Your task to perform on an android device: visit the assistant section in the google photos Image 0: 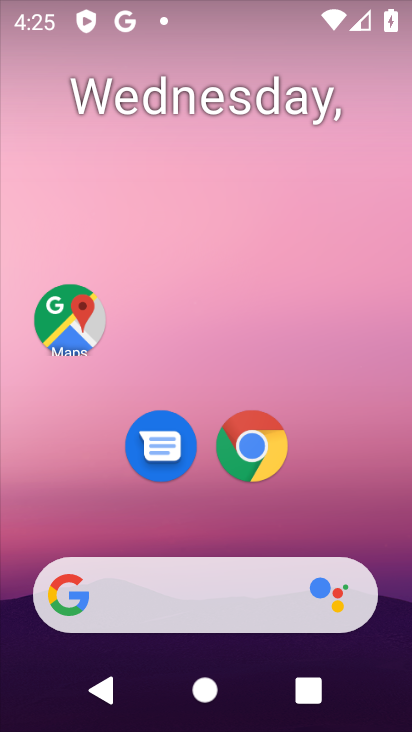
Step 0: drag from (100, 524) to (200, 93)
Your task to perform on an android device: visit the assistant section in the google photos Image 1: 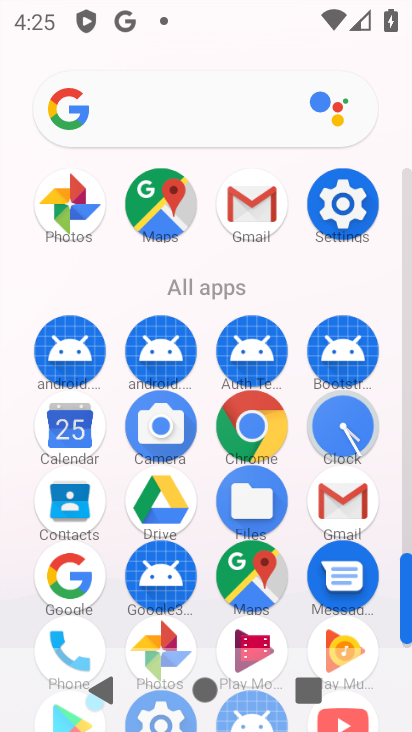
Step 1: drag from (212, 659) to (259, 488)
Your task to perform on an android device: visit the assistant section in the google photos Image 2: 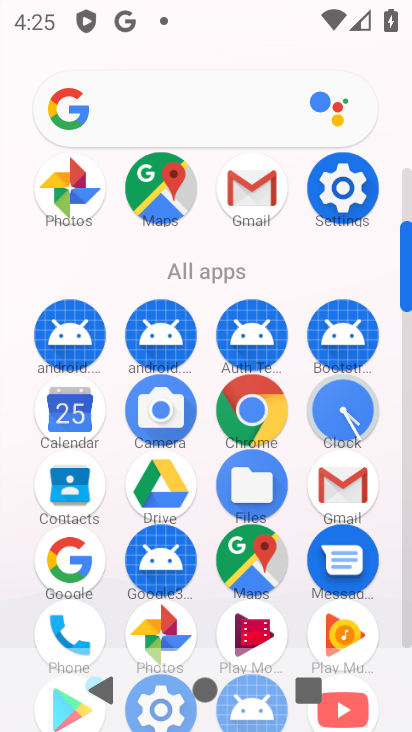
Step 2: click (148, 642)
Your task to perform on an android device: visit the assistant section in the google photos Image 3: 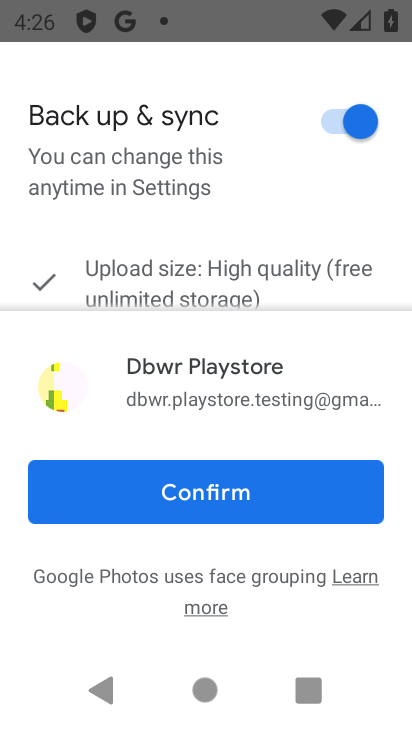
Step 3: click (215, 496)
Your task to perform on an android device: visit the assistant section in the google photos Image 4: 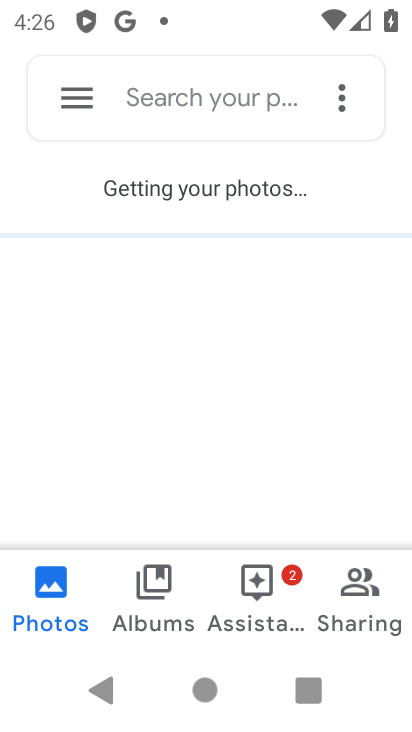
Step 4: click (276, 583)
Your task to perform on an android device: visit the assistant section in the google photos Image 5: 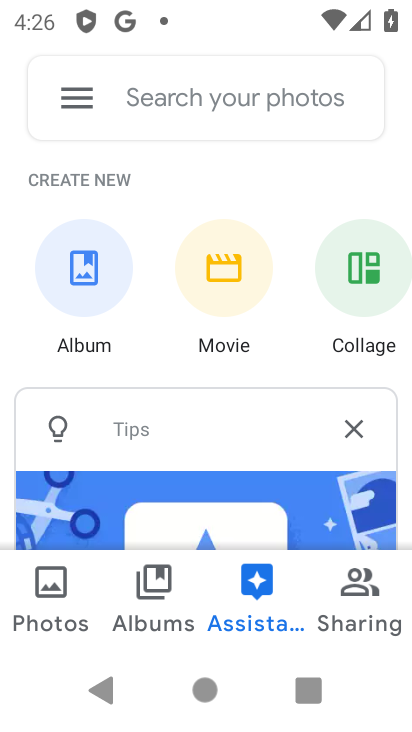
Step 5: task complete